Your task to perform on an android device: Go to notification settings Image 0: 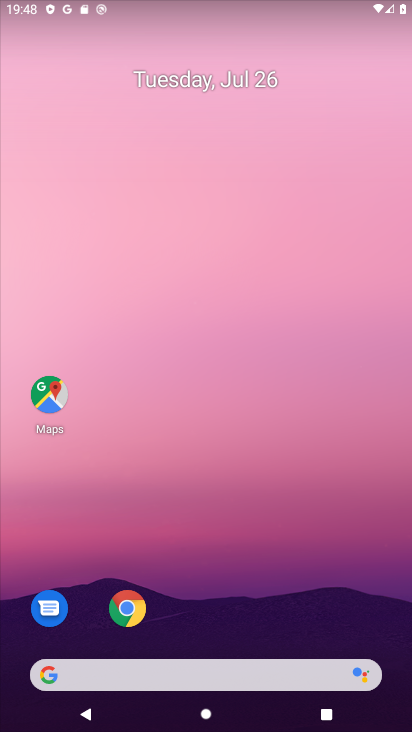
Step 0: drag from (320, 499) to (367, 29)
Your task to perform on an android device: Go to notification settings Image 1: 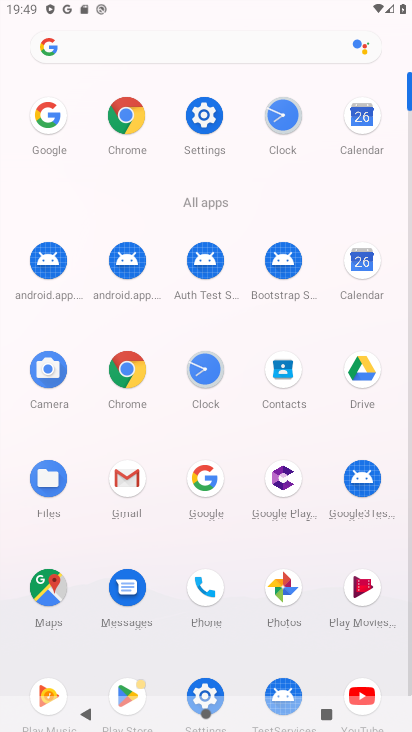
Step 1: click (211, 119)
Your task to perform on an android device: Go to notification settings Image 2: 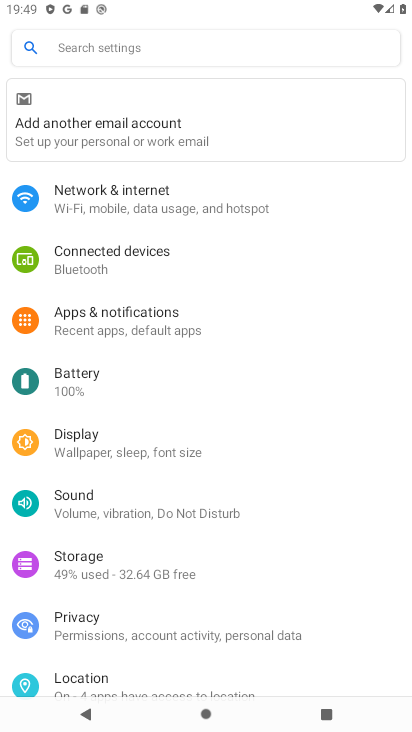
Step 2: click (140, 319)
Your task to perform on an android device: Go to notification settings Image 3: 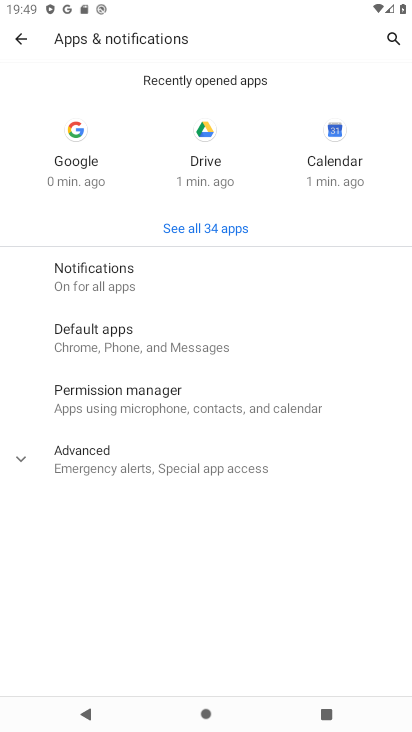
Step 3: click (86, 287)
Your task to perform on an android device: Go to notification settings Image 4: 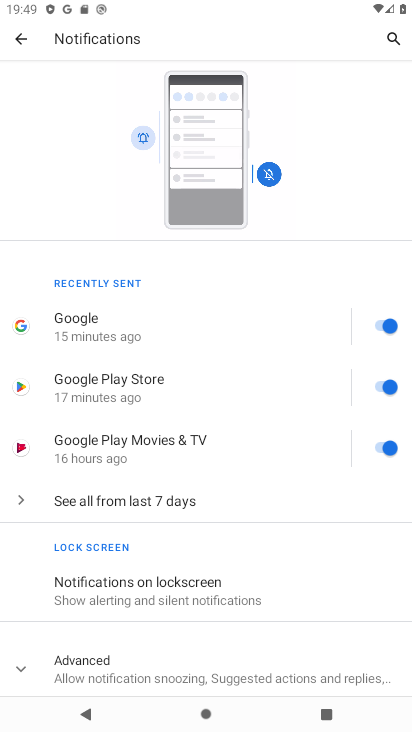
Step 4: task complete